Your task to perform on an android device: set the timer Image 0: 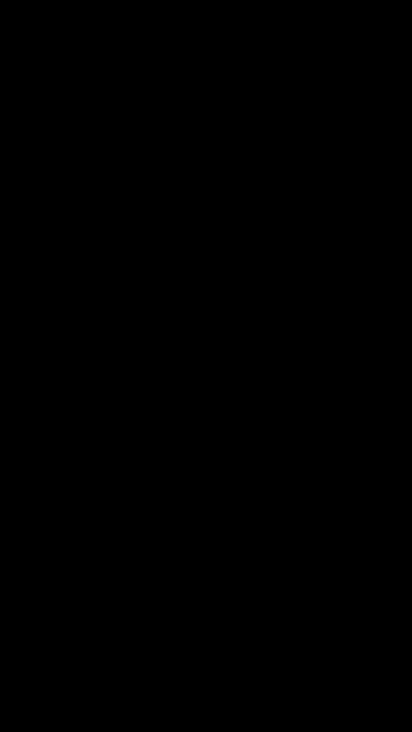
Step 0: press home button
Your task to perform on an android device: set the timer Image 1: 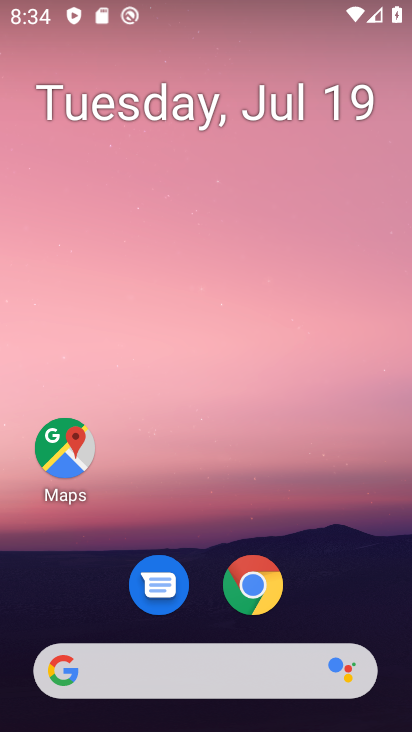
Step 1: drag from (202, 627) to (138, 25)
Your task to perform on an android device: set the timer Image 2: 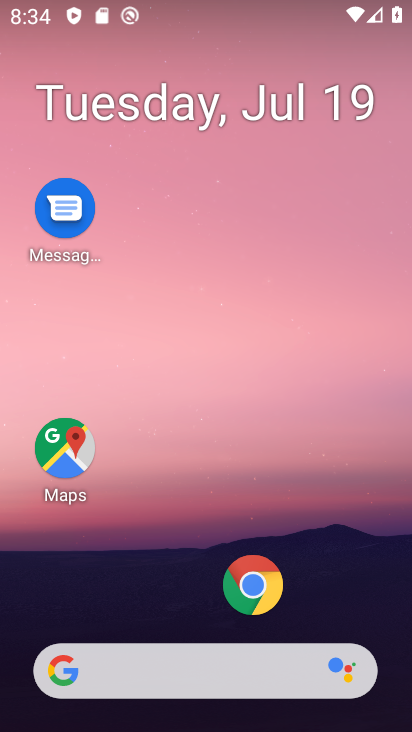
Step 2: drag from (183, 624) to (150, 102)
Your task to perform on an android device: set the timer Image 3: 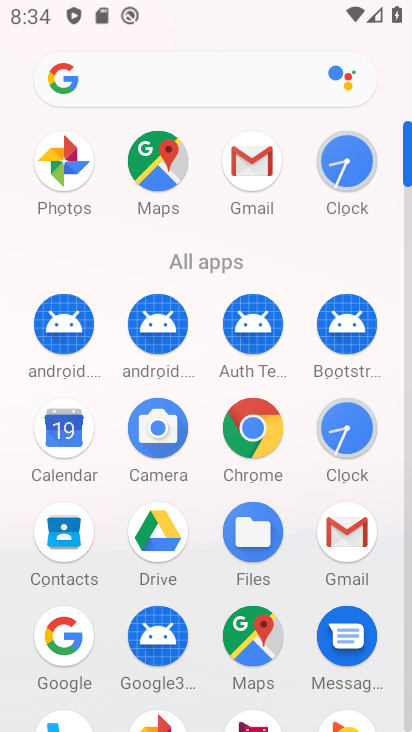
Step 3: click (342, 161)
Your task to perform on an android device: set the timer Image 4: 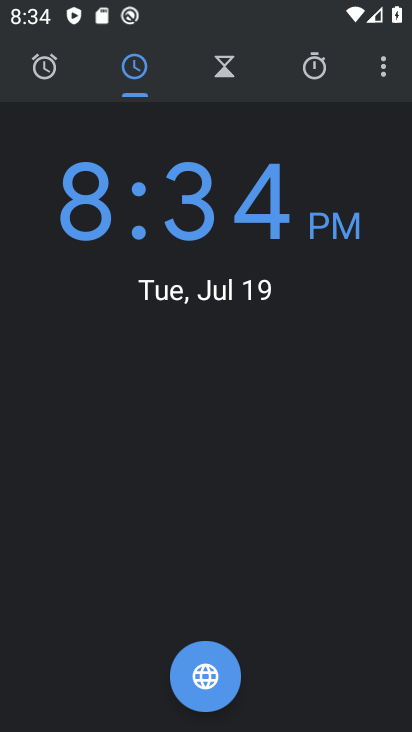
Step 4: click (47, 62)
Your task to perform on an android device: set the timer Image 5: 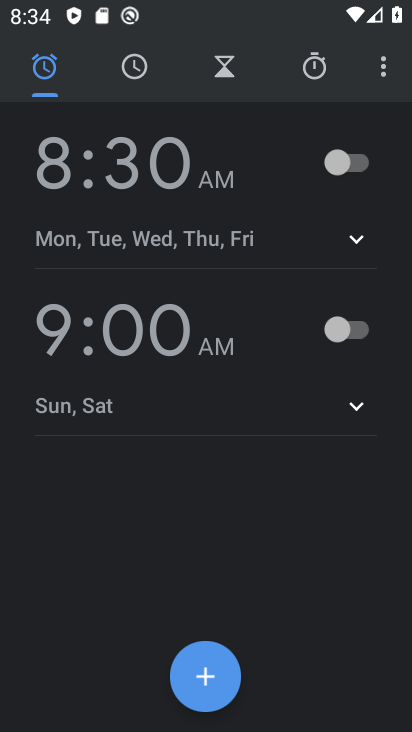
Step 5: click (218, 66)
Your task to perform on an android device: set the timer Image 6: 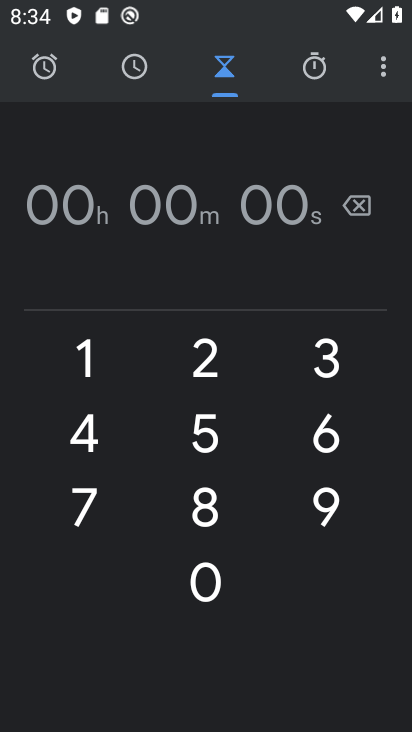
Step 6: click (193, 373)
Your task to perform on an android device: set the timer Image 7: 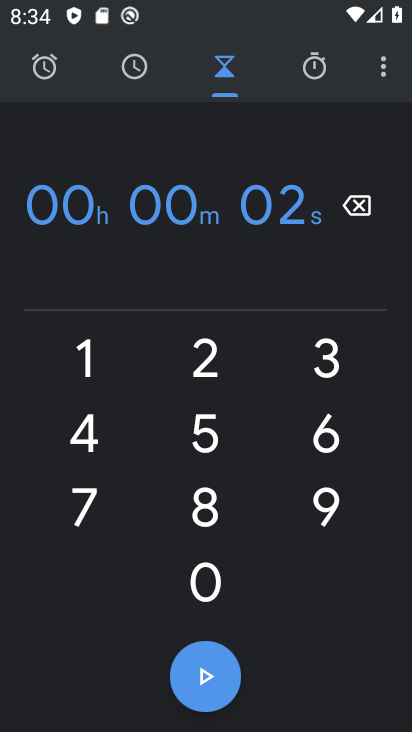
Step 7: click (225, 678)
Your task to perform on an android device: set the timer Image 8: 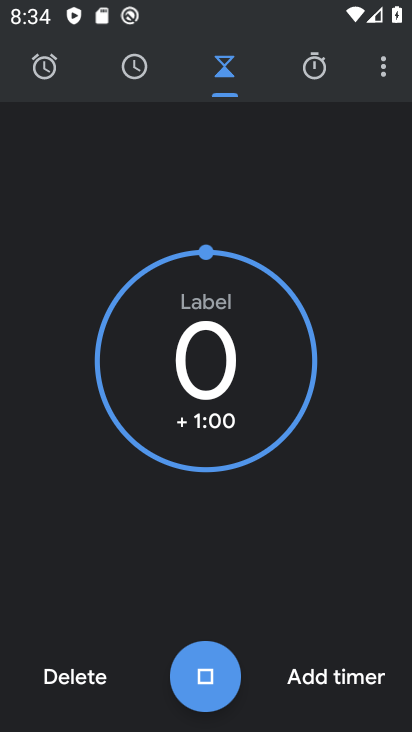
Step 8: click (225, 678)
Your task to perform on an android device: set the timer Image 9: 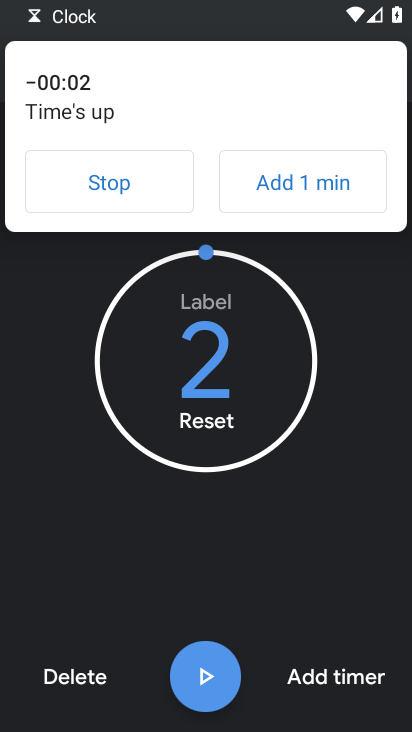
Step 9: task complete